Your task to perform on an android device: change the clock style Image 0: 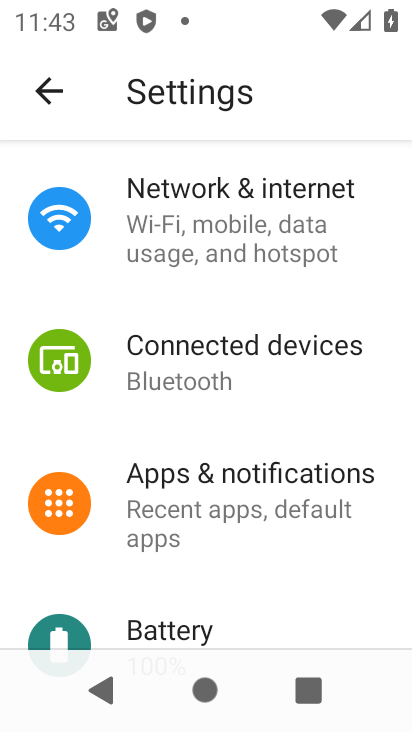
Step 0: press home button
Your task to perform on an android device: change the clock style Image 1: 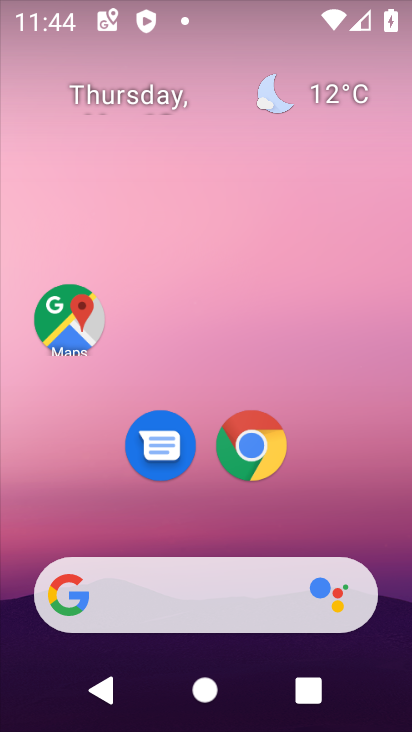
Step 1: drag from (211, 575) to (173, 82)
Your task to perform on an android device: change the clock style Image 2: 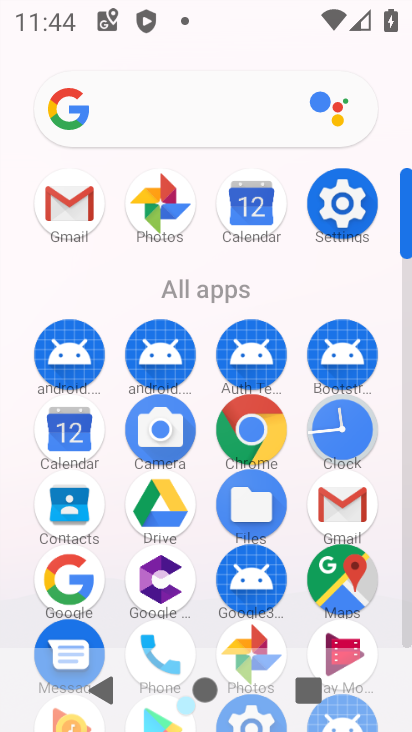
Step 2: click (336, 432)
Your task to perform on an android device: change the clock style Image 3: 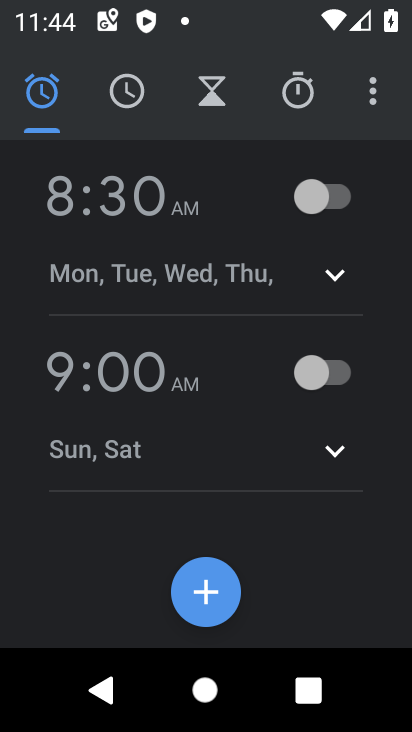
Step 3: click (367, 99)
Your task to perform on an android device: change the clock style Image 4: 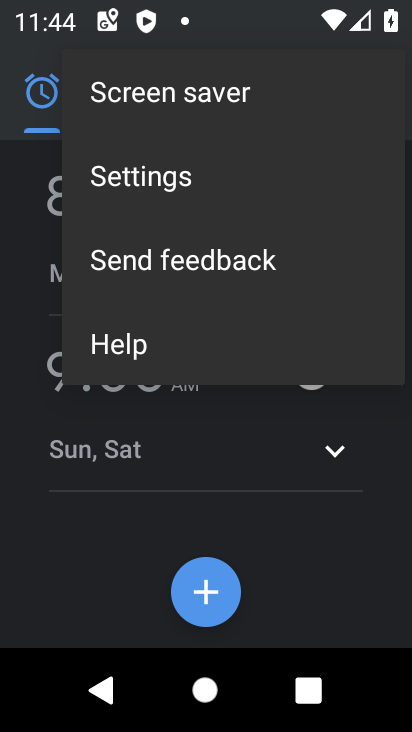
Step 4: click (149, 187)
Your task to perform on an android device: change the clock style Image 5: 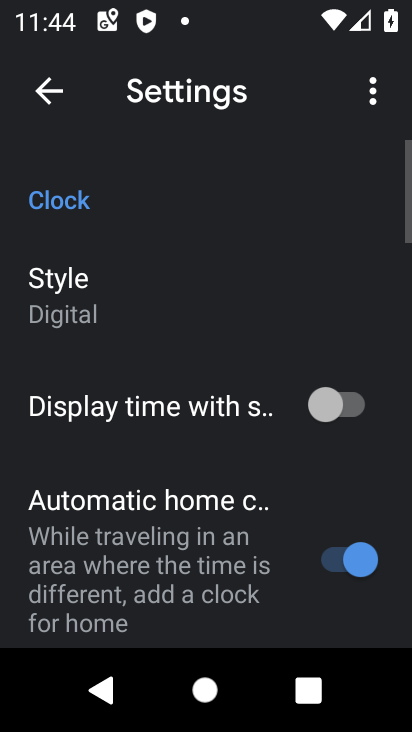
Step 5: click (90, 288)
Your task to perform on an android device: change the clock style Image 6: 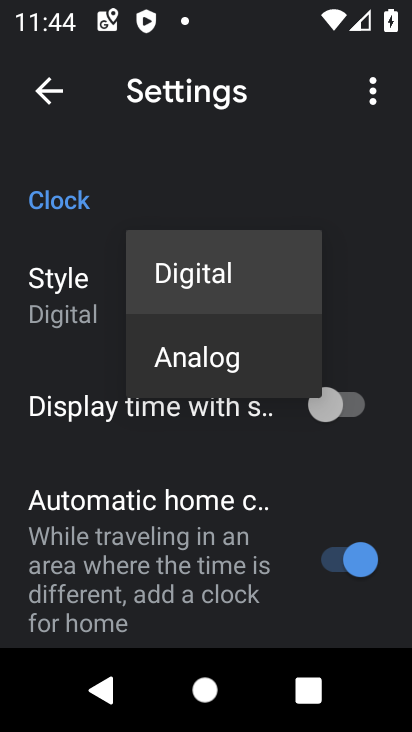
Step 6: click (165, 346)
Your task to perform on an android device: change the clock style Image 7: 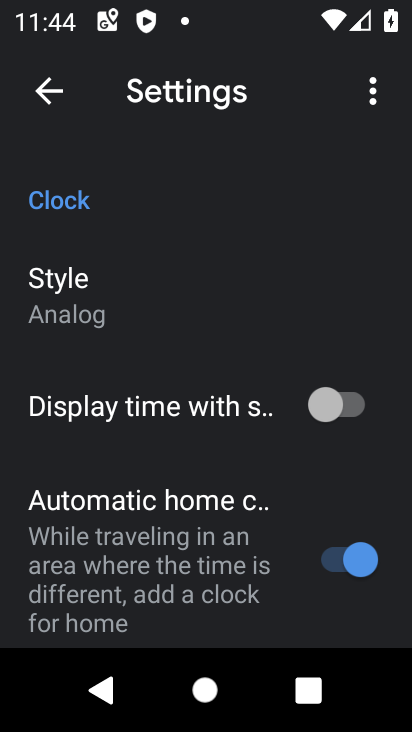
Step 7: task complete